Your task to perform on an android device: Open wifi settings Image 0: 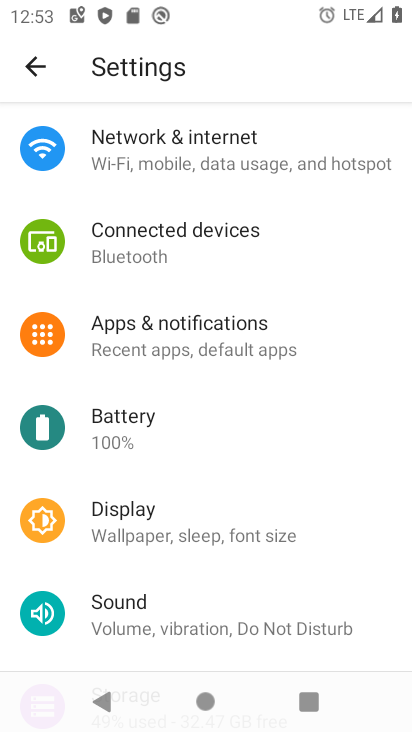
Step 0: click (341, 138)
Your task to perform on an android device: Open wifi settings Image 1: 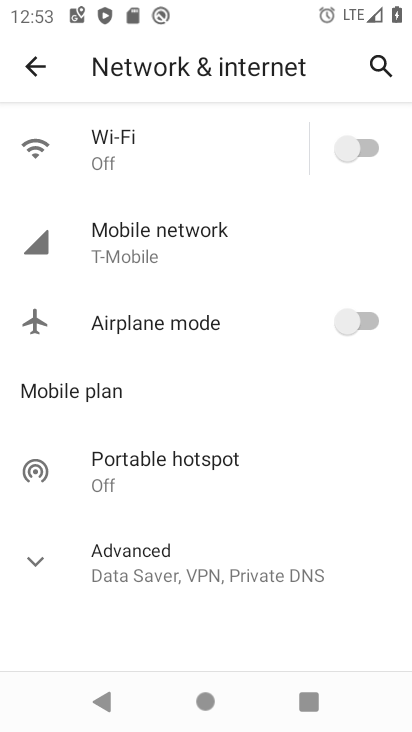
Step 1: click (177, 152)
Your task to perform on an android device: Open wifi settings Image 2: 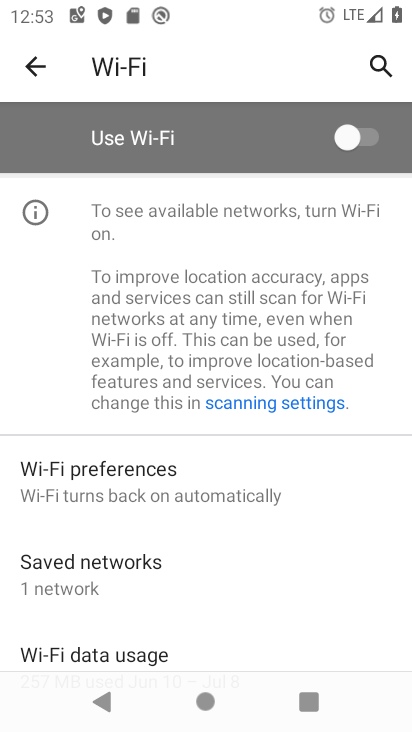
Step 2: task complete